Your task to perform on an android device: Go to Android settings Image 0: 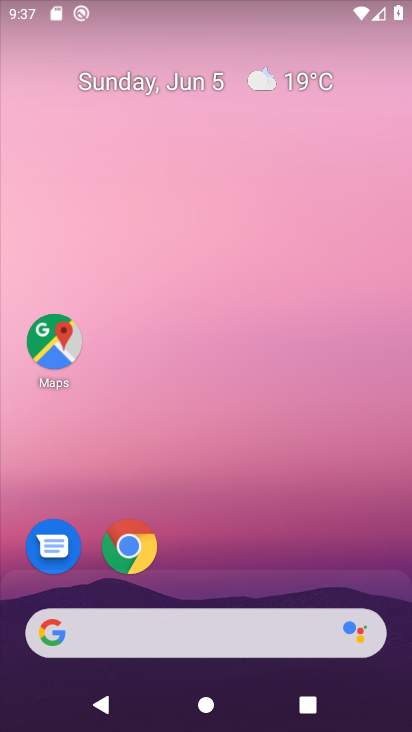
Step 0: drag from (169, 608) to (367, 45)
Your task to perform on an android device: Go to Android settings Image 1: 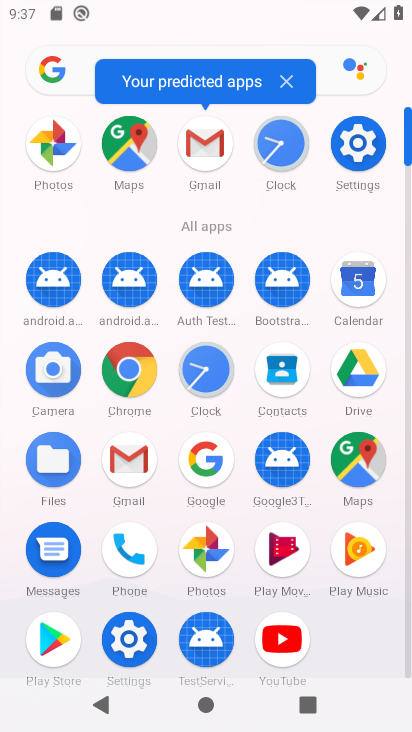
Step 1: drag from (124, 621) to (242, 357)
Your task to perform on an android device: Go to Android settings Image 2: 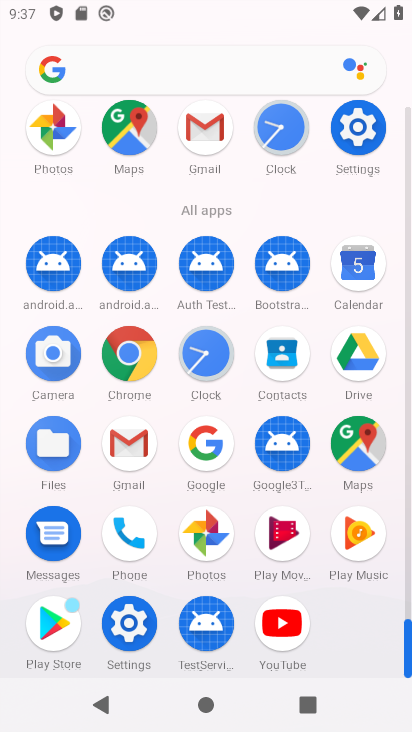
Step 2: click (131, 625)
Your task to perform on an android device: Go to Android settings Image 3: 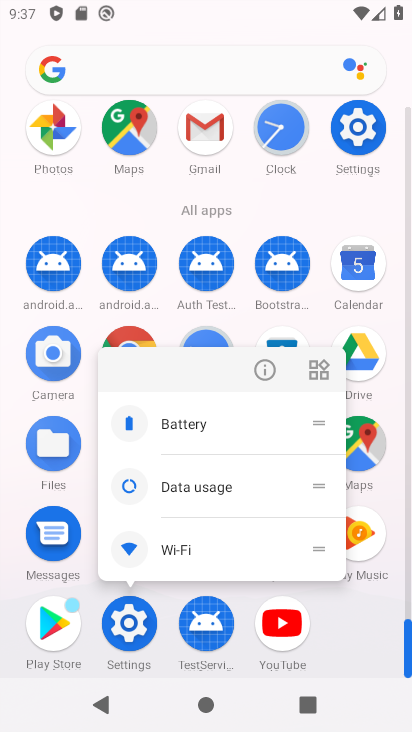
Step 3: click (117, 637)
Your task to perform on an android device: Go to Android settings Image 4: 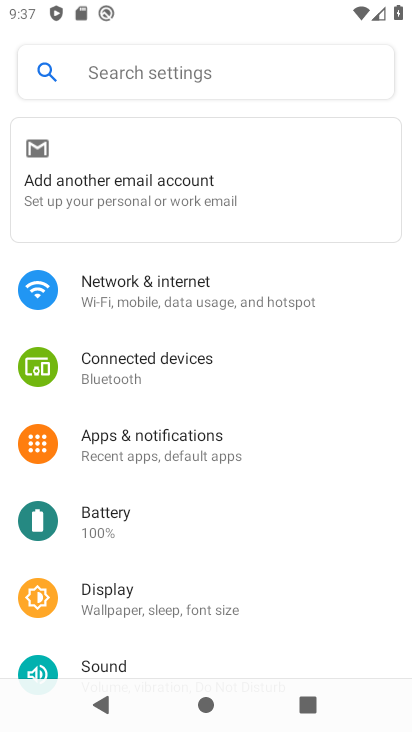
Step 4: task complete